Your task to perform on an android device: open chrome and create a bookmark for the current page Image 0: 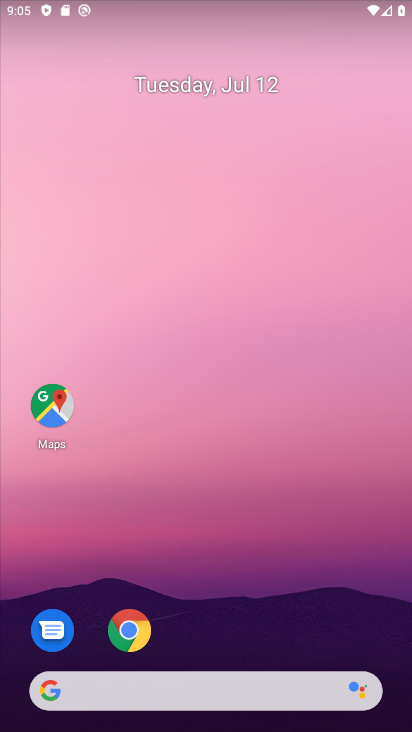
Step 0: click (129, 643)
Your task to perform on an android device: open chrome and create a bookmark for the current page Image 1: 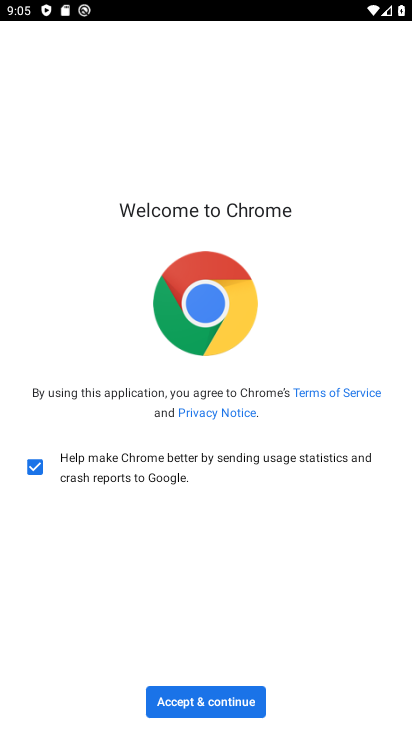
Step 1: click (208, 697)
Your task to perform on an android device: open chrome and create a bookmark for the current page Image 2: 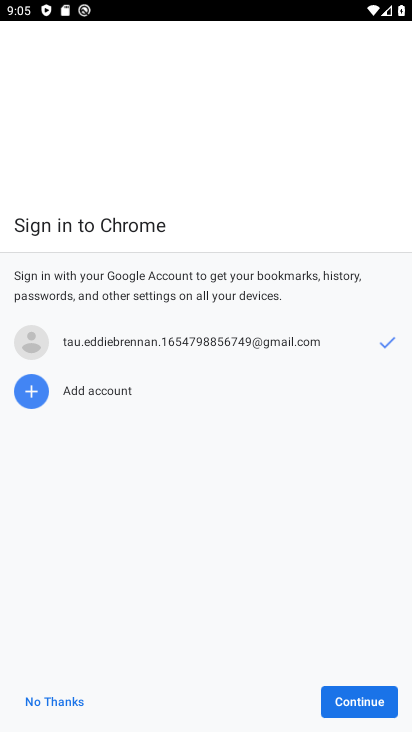
Step 2: click (342, 693)
Your task to perform on an android device: open chrome and create a bookmark for the current page Image 3: 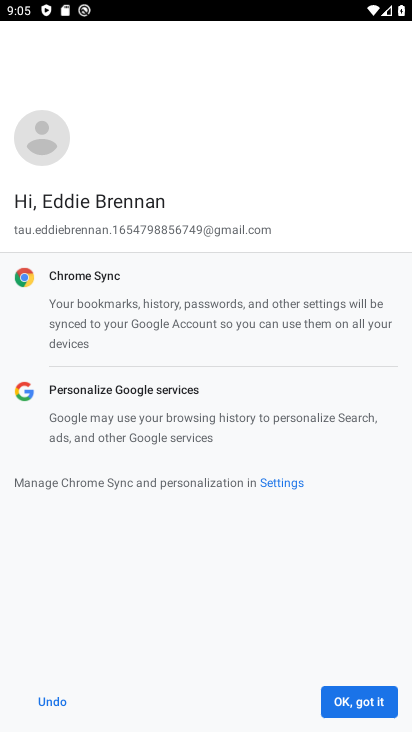
Step 3: click (342, 694)
Your task to perform on an android device: open chrome and create a bookmark for the current page Image 4: 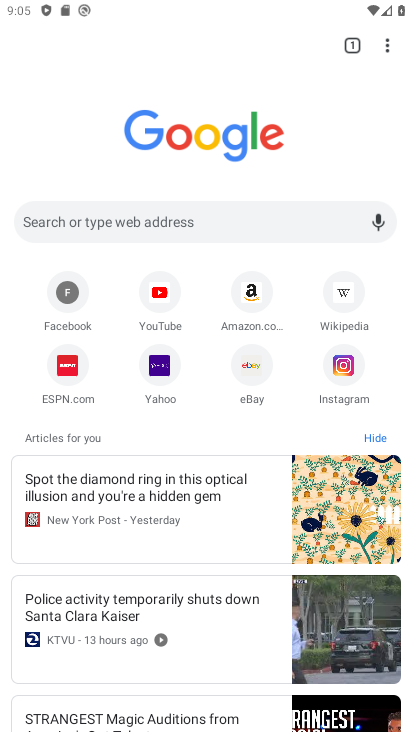
Step 4: click (383, 59)
Your task to perform on an android device: open chrome and create a bookmark for the current page Image 5: 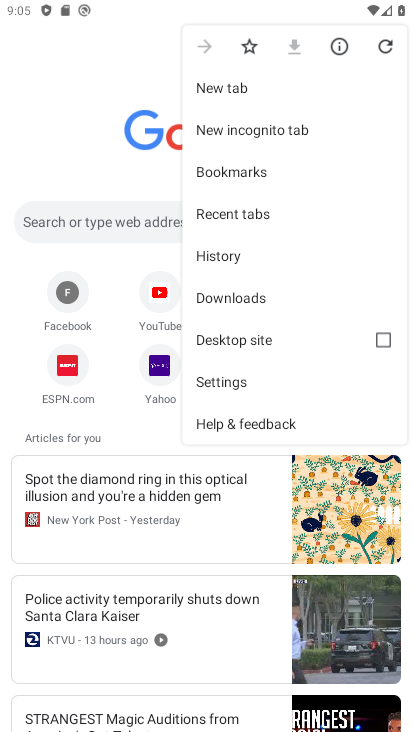
Step 5: click (250, 49)
Your task to perform on an android device: open chrome and create a bookmark for the current page Image 6: 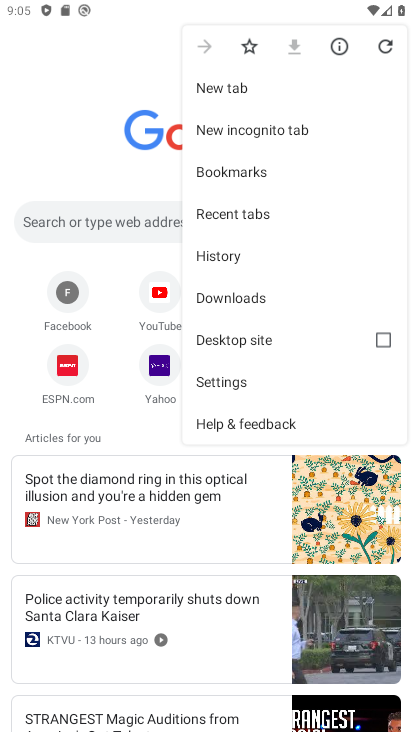
Step 6: click (250, 45)
Your task to perform on an android device: open chrome and create a bookmark for the current page Image 7: 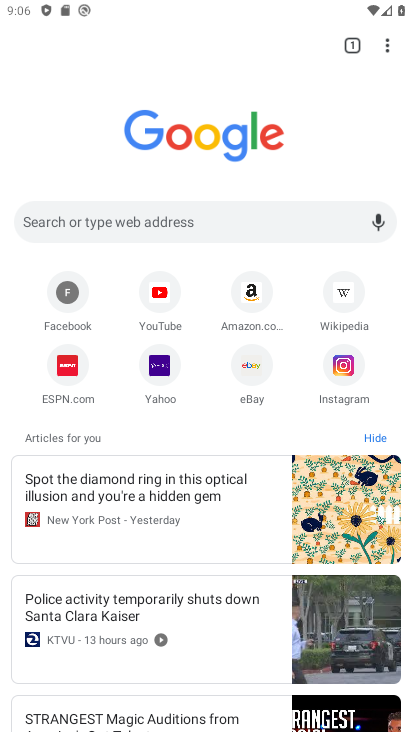
Step 7: task complete